Your task to perform on an android device: Go to ESPN.com Image 0: 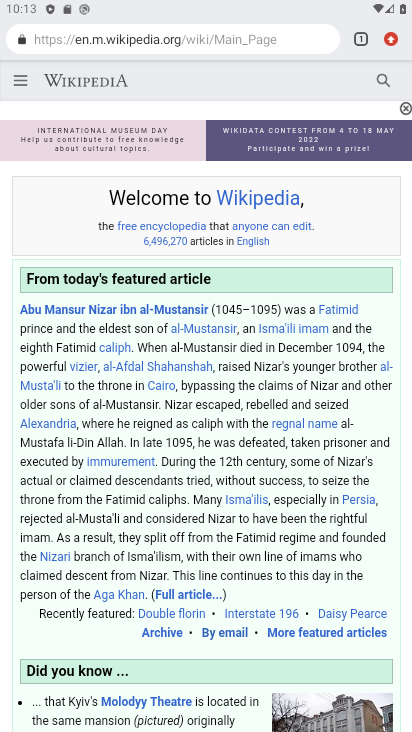
Step 0: click (205, 34)
Your task to perform on an android device: Go to ESPN.com Image 1: 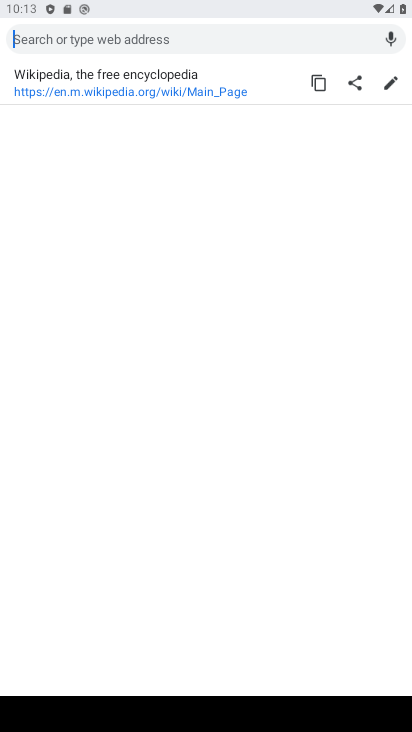
Step 1: type "ESPN.com"
Your task to perform on an android device: Go to ESPN.com Image 2: 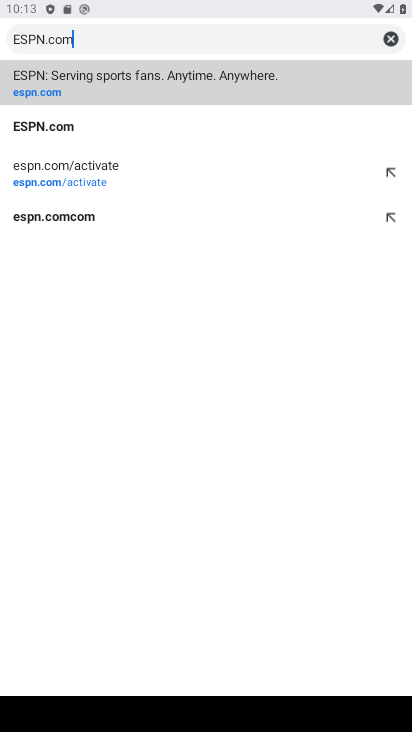
Step 2: click (89, 123)
Your task to perform on an android device: Go to ESPN.com Image 3: 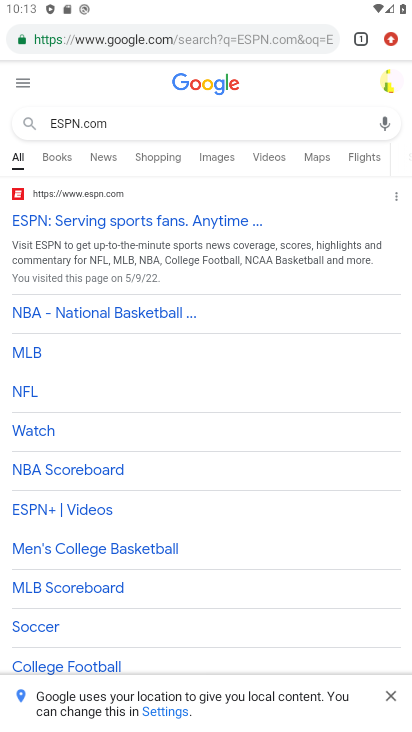
Step 3: task complete